Your task to perform on an android device: choose inbox layout in the gmail app Image 0: 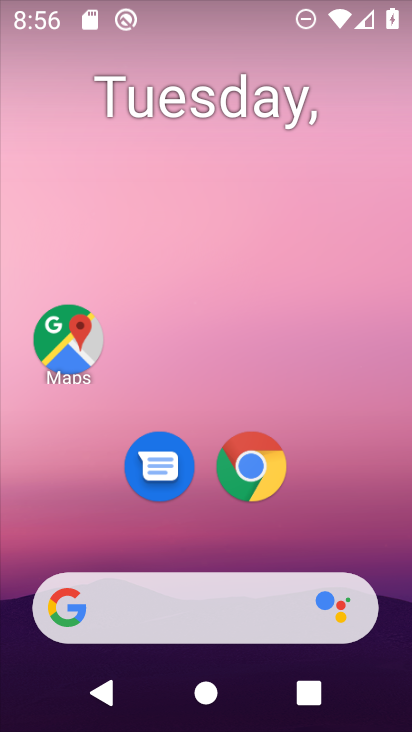
Step 0: drag from (193, 559) to (250, 28)
Your task to perform on an android device: choose inbox layout in the gmail app Image 1: 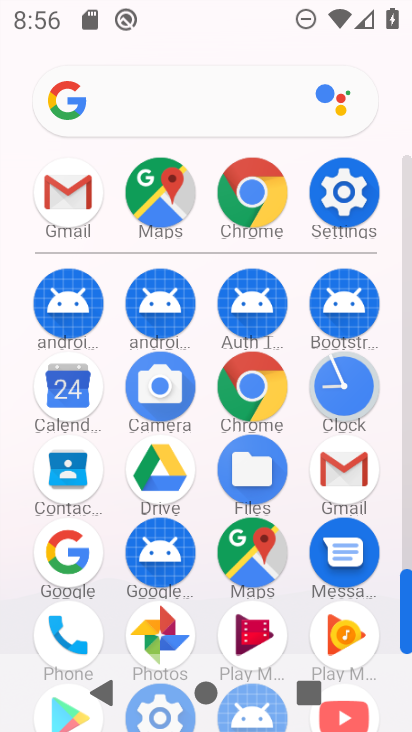
Step 1: click (331, 476)
Your task to perform on an android device: choose inbox layout in the gmail app Image 2: 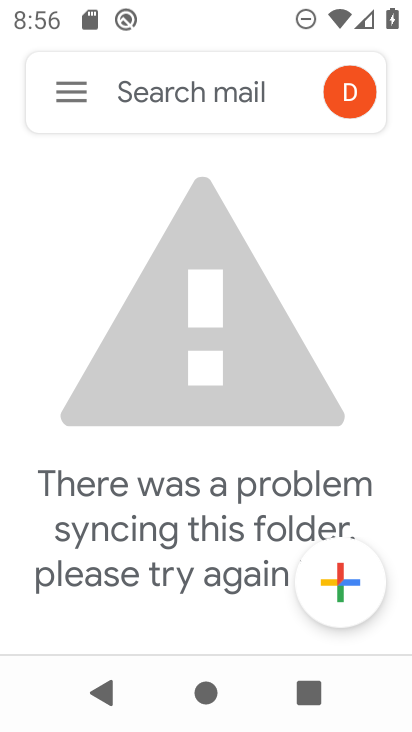
Step 2: click (60, 75)
Your task to perform on an android device: choose inbox layout in the gmail app Image 3: 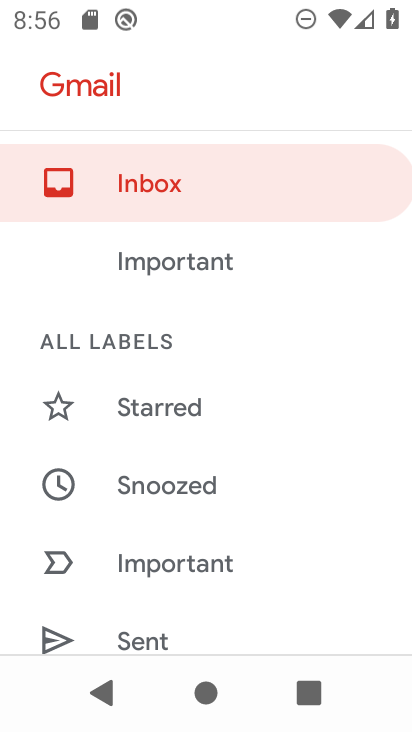
Step 3: drag from (113, 487) to (199, 9)
Your task to perform on an android device: choose inbox layout in the gmail app Image 4: 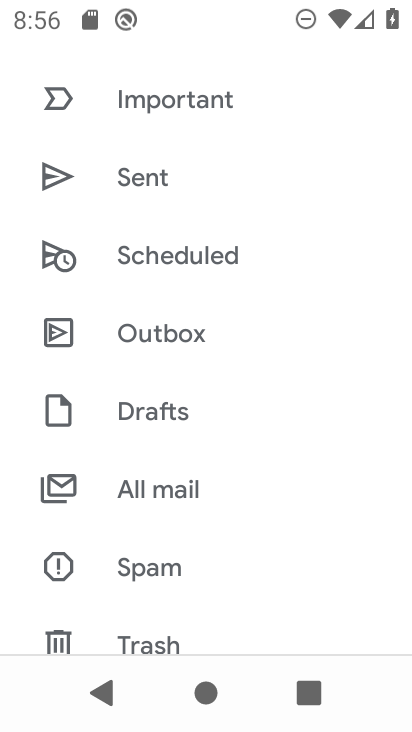
Step 4: drag from (232, 629) to (230, 157)
Your task to perform on an android device: choose inbox layout in the gmail app Image 5: 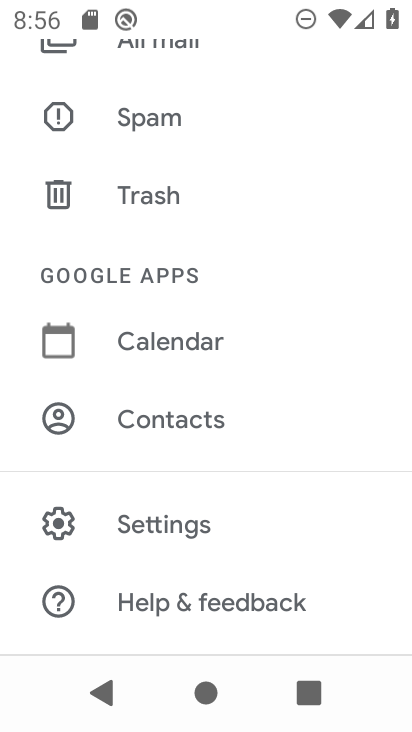
Step 5: click (150, 529)
Your task to perform on an android device: choose inbox layout in the gmail app Image 6: 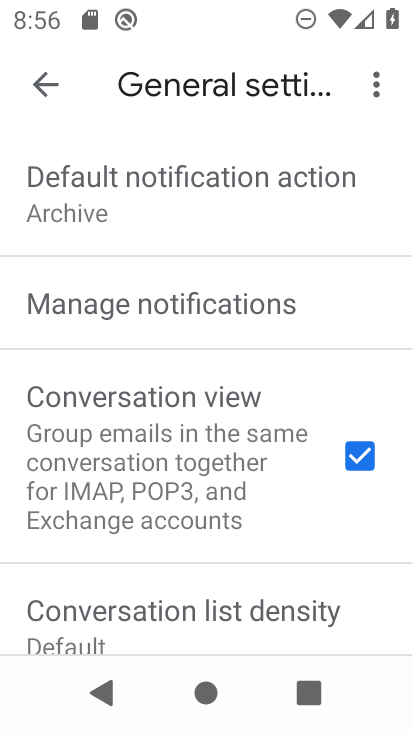
Step 6: drag from (183, 502) to (187, 349)
Your task to perform on an android device: choose inbox layout in the gmail app Image 7: 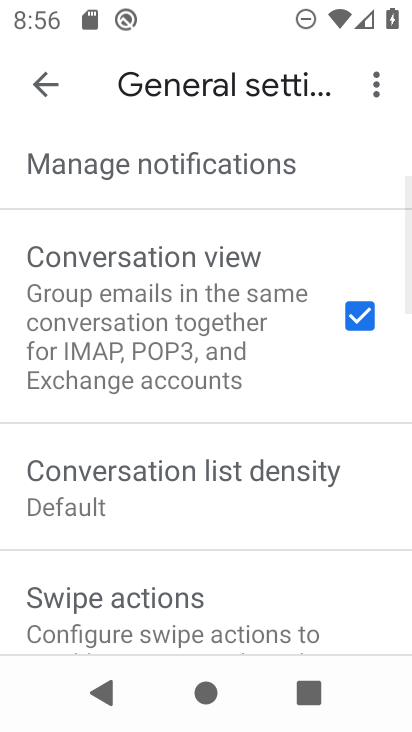
Step 7: click (39, 76)
Your task to perform on an android device: choose inbox layout in the gmail app Image 8: 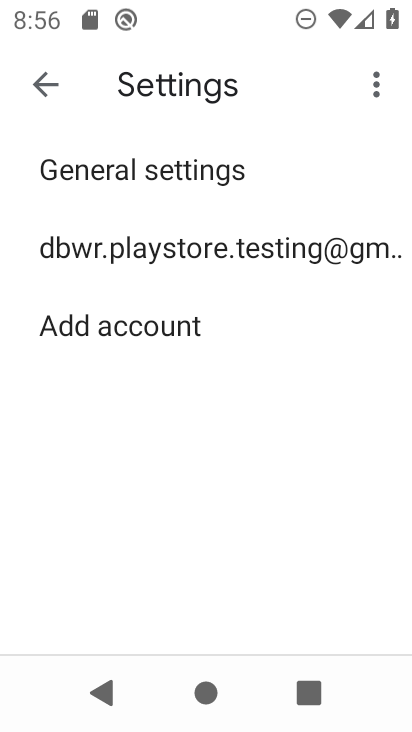
Step 8: click (169, 253)
Your task to perform on an android device: choose inbox layout in the gmail app Image 9: 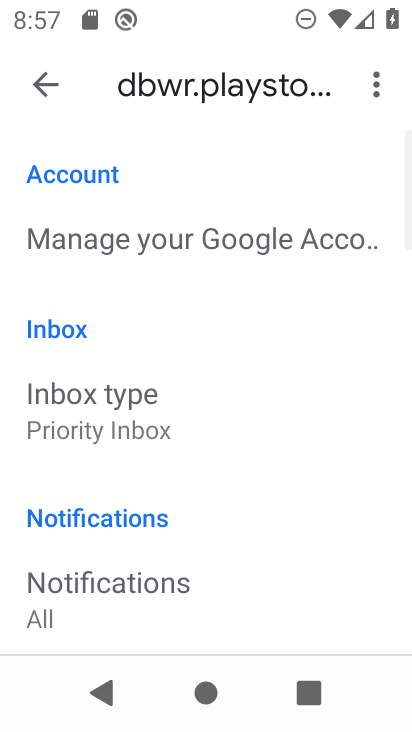
Step 9: click (174, 422)
Your task to perform on an android device: choose inbox layout in the gmail app Image 10: 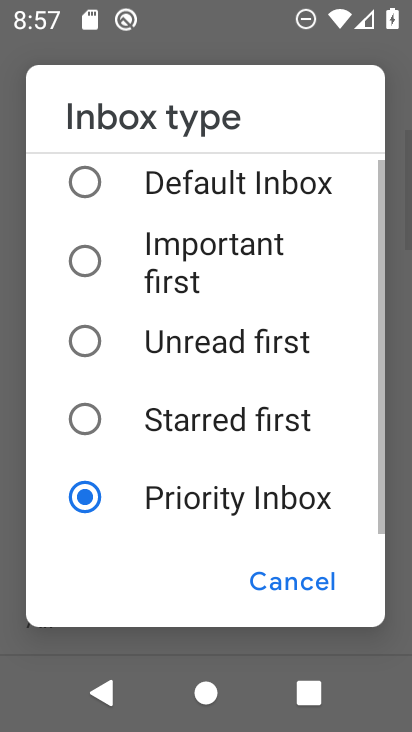
Step 10: click (214, 182)
Your task to perform on an android device: choose inbox layout in the gmail app Image 11: 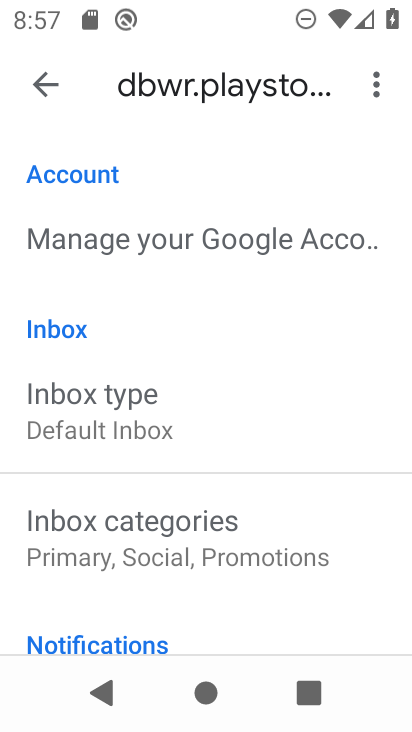
Step 11: task complete